Your task to perform on an android device: change the clock display to digital Image 0: 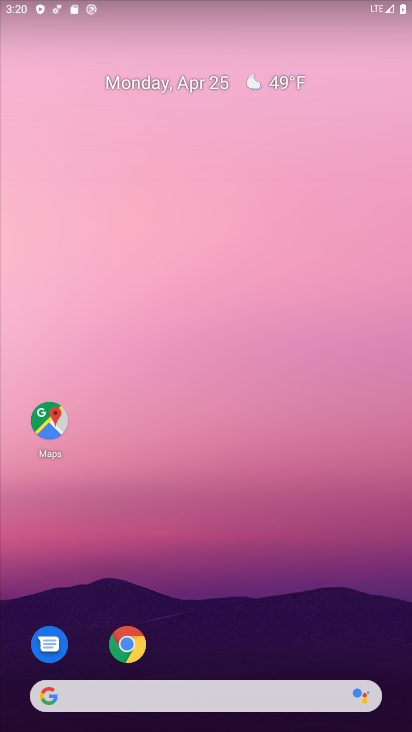
Step 0: click (254, 634)
Your task to perform on an android device: change the clock display to digital Image 1: 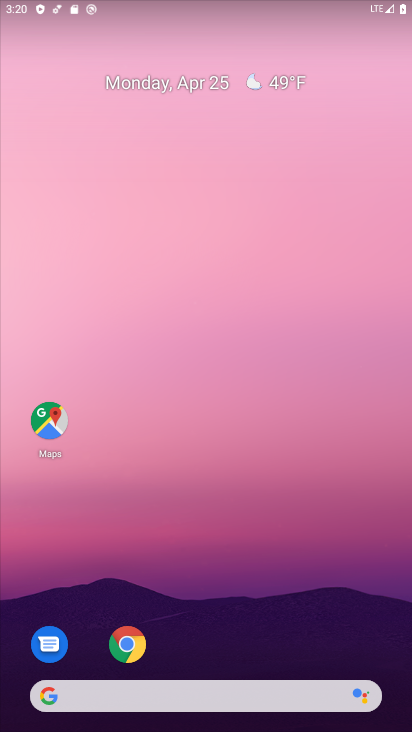
Step 1: drag from (254, 634) to (245, 78)
Your task to perform on an android device: change the clock display to digital Image 2: 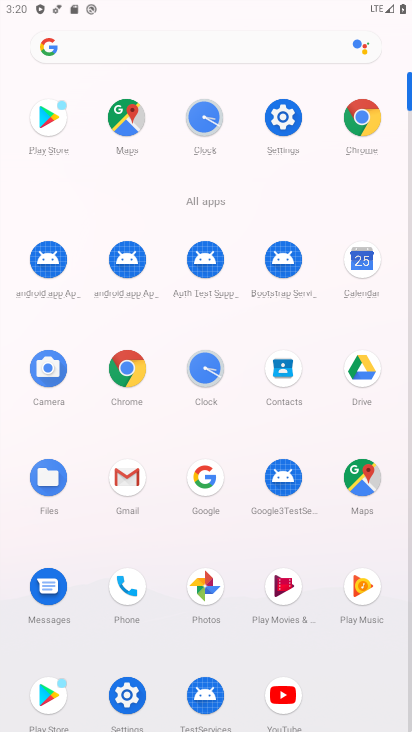
Step 2: click (205, 140)
Your task to perform on an android device: change the clock display to digital Image 3: 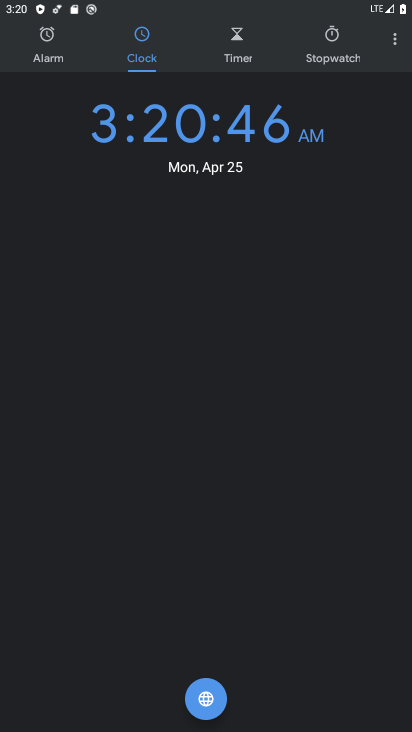
Step 3: click (400, 32)
Your task to perform on an android device: change the clock display to digital Image 4: 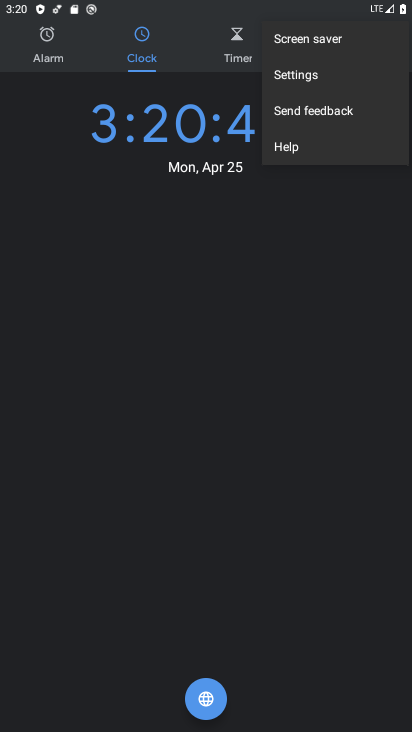
Step 4: click (312, 84)
Your task to perform on an android device: change the clock display to digital Image 5: 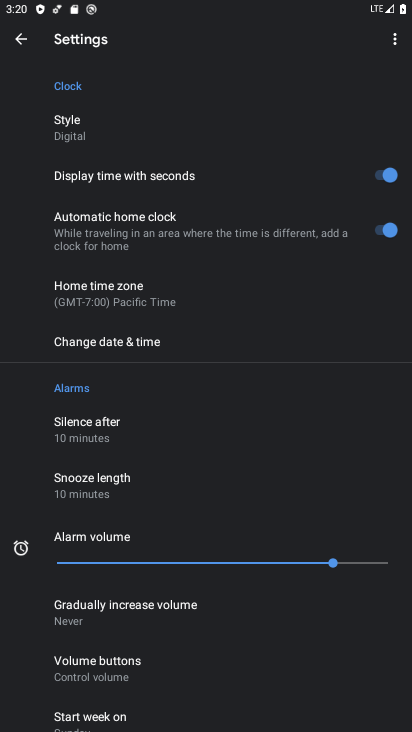
Step 5: drag from (80, 415) to (109, 172)
Your task to perform on an android device: change the clock display to digital Image 6: 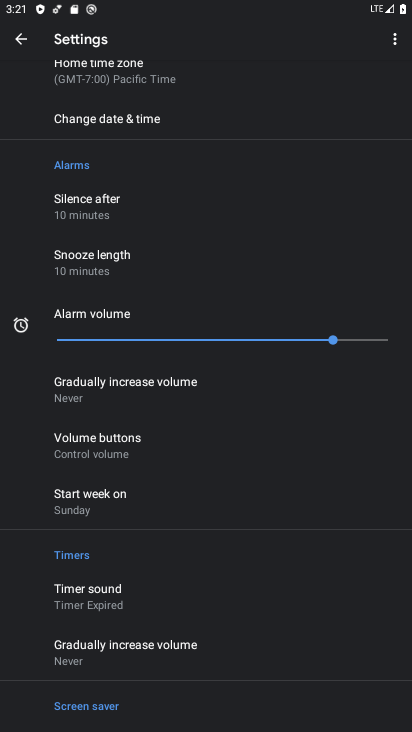
Step 6: drag from (194, 247) to (174, 655)
Your task to perform on an android device: change the clock display to digital Image 7: 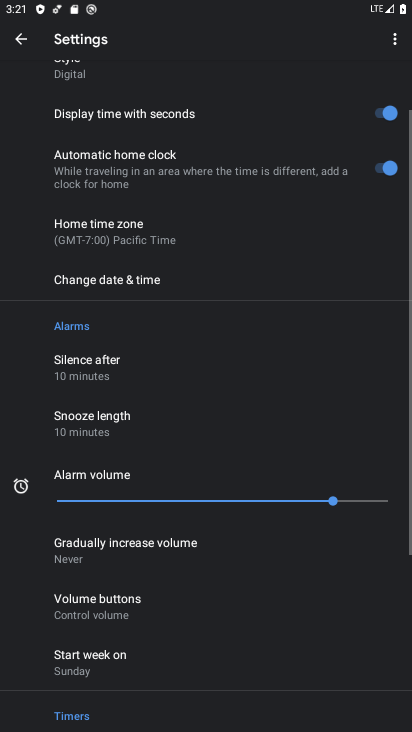
Step 7: click (169, 137)
Your task to perform on an android device: change the clock display to digital Image 8: 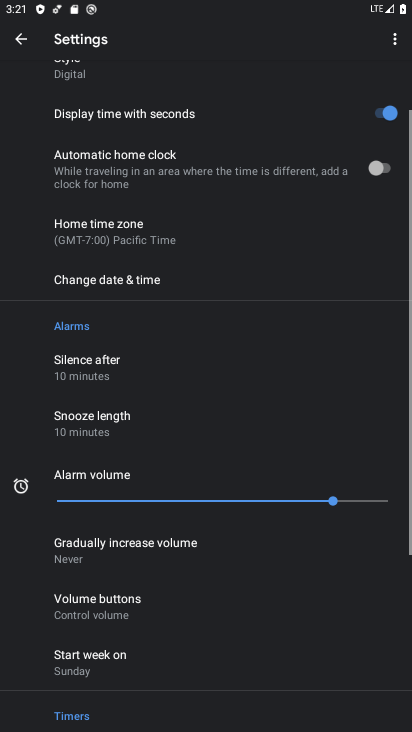
Step 8: click (193, 114)
Your task to perform on an android device: change the clock display to digital Image 9: 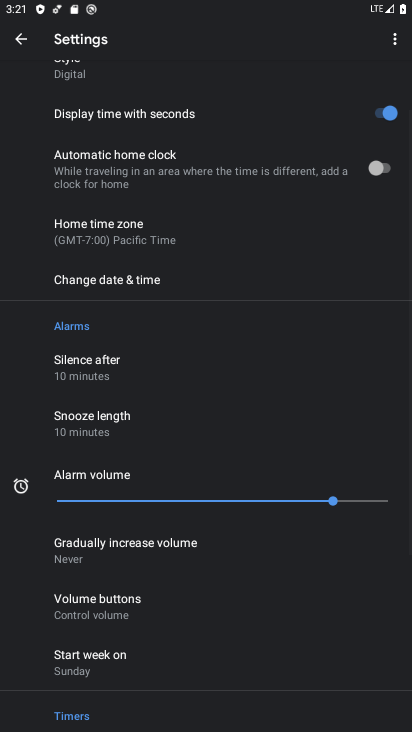
Step 9: click (16, 30)
Your task to perform on an android device: change the clock display to digital Image 10: 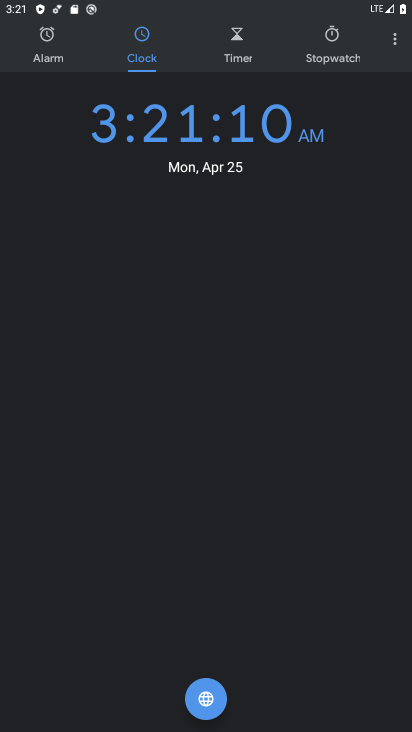
Step 10: task complete